Your task to perform on an android device: open device folders in google photos Image 0: 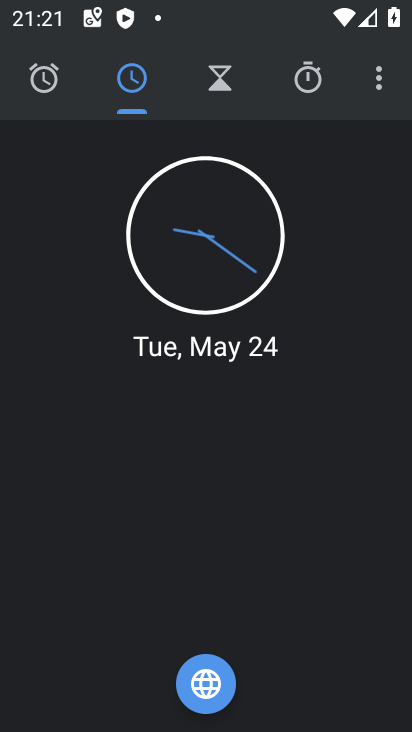
Step 0: press home button
Your task to perform on an android device: open device folders in google photos Image 1: 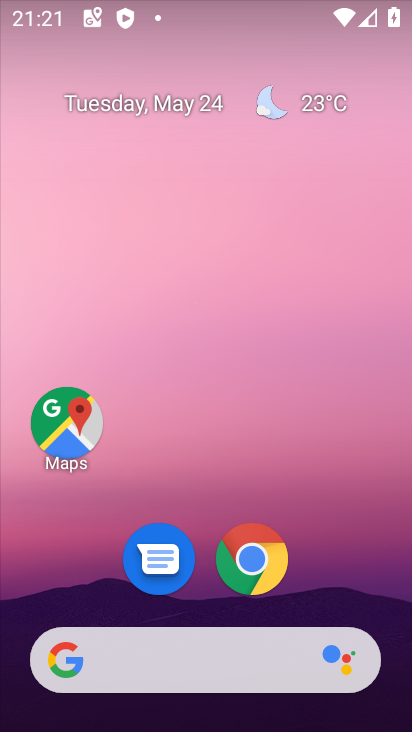
Step 1: drag from (330, 500) to (343, 178)
Your task to perform on an android device: open device folders in google photos Image 2: 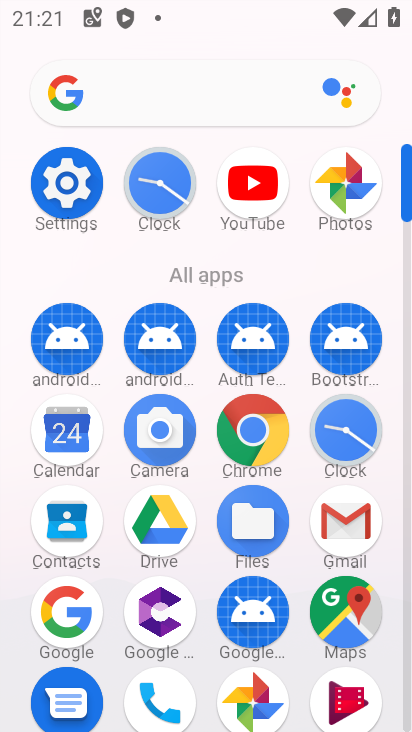
Step 2: click (260, 693)
Your task to perform on an android device: open device folders in google photos Image 3: 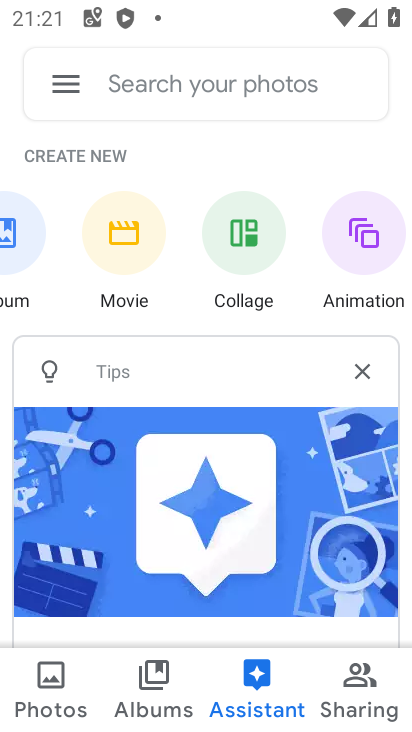
Step 3: click (64, 89)
Your task to perform on an android device: open device folders in google photos Image 4: 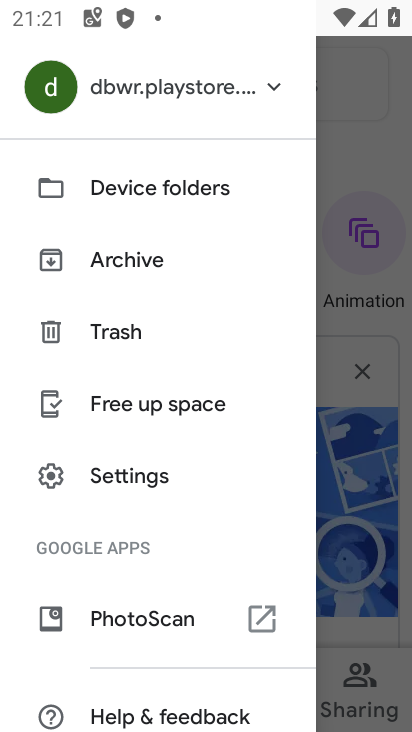
Step 4: click (165, 172)
Your task to perform on an android device: open device folders in google photos Image 5: 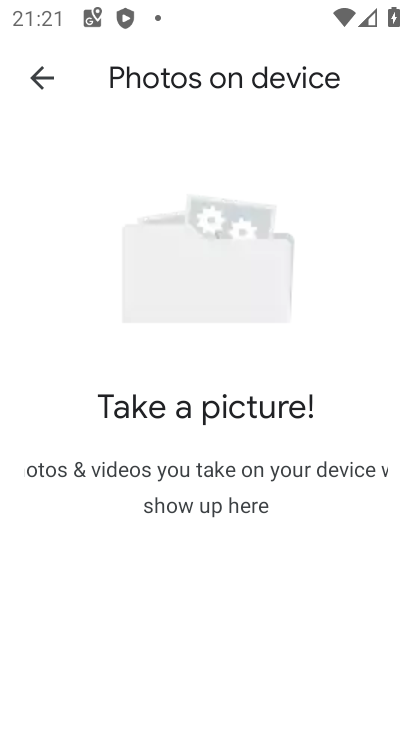
Step 5: task complete